Your task to perform on an android device: Go to Amazon Image 0: 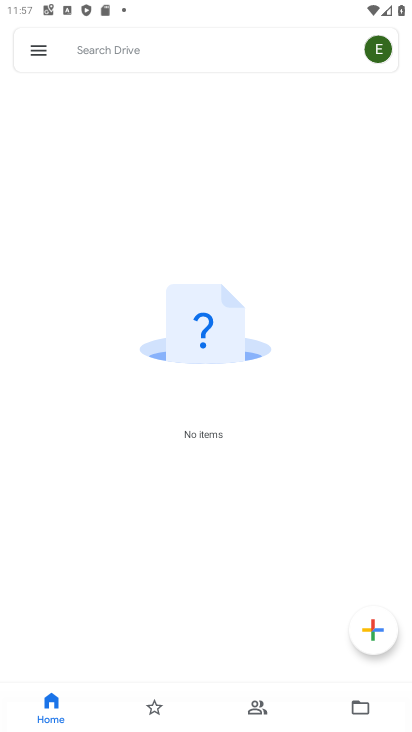
Step 0: press home button
Your task to perform on an android device: Go to Amazon Image 1: 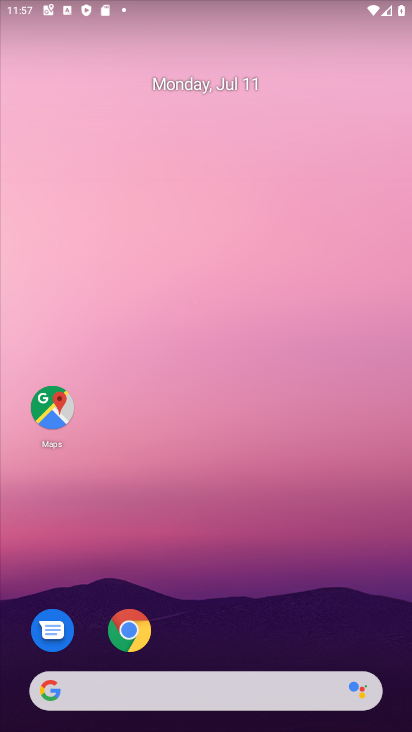
Step 1: click (128, 630)
Your task to perform on an android device: Go to Amazon Image 2: 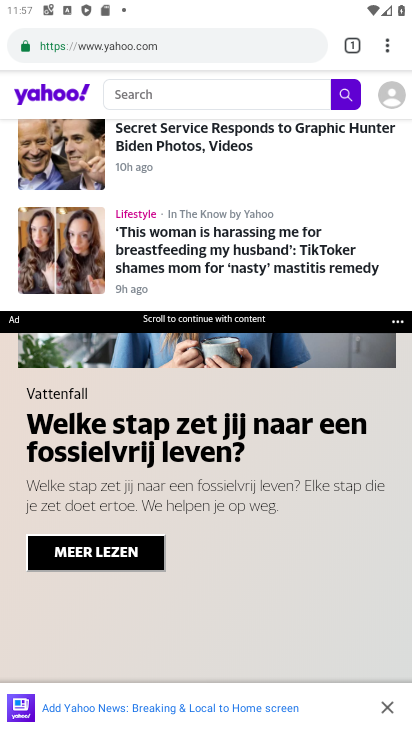
Step 2: click (182, 35)
Your task to perform on an android device: Go to Amazon Image 3: 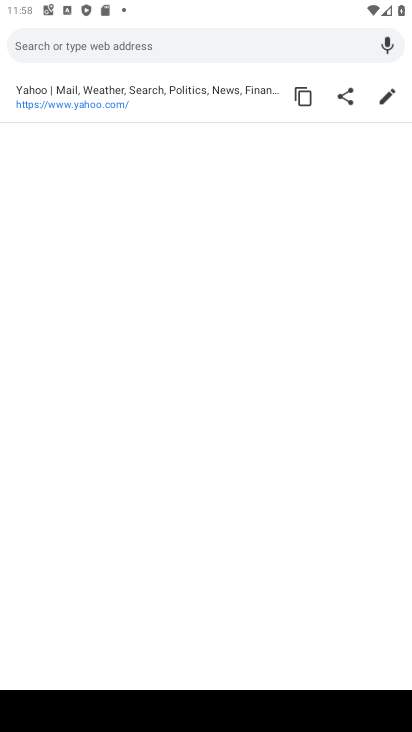
Step 3: type "Amazon"
Your task to perform on an android device: Go to Amazon Image 4: 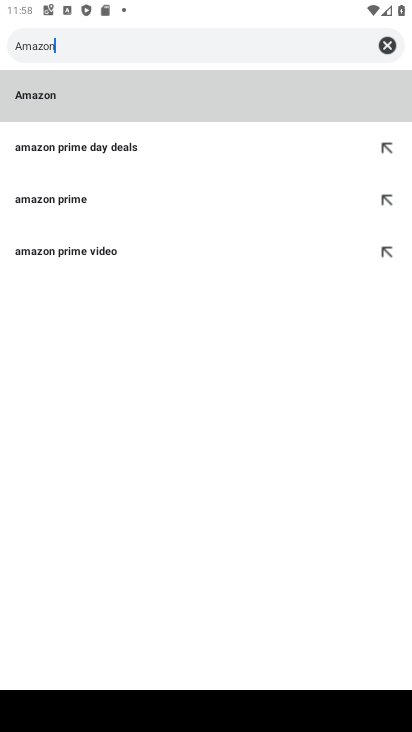
Step 4: click (51, 99)
Your task to perform on an android device: Go to Amazon Image 5: 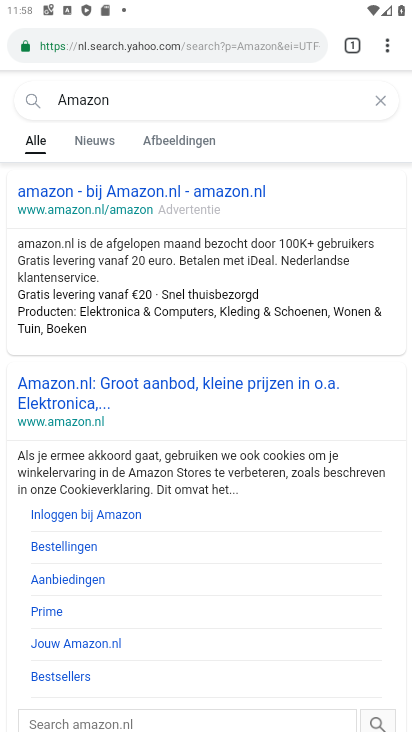
Step 5: click (49, 198)
Your task to perform on an android device: Go to Amazon Image 6: 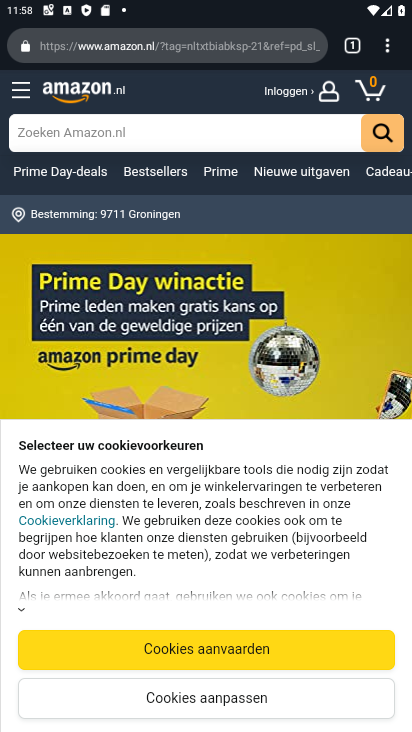
Step 6: task complete